Your task to perform on an android device: check storage Image 0: 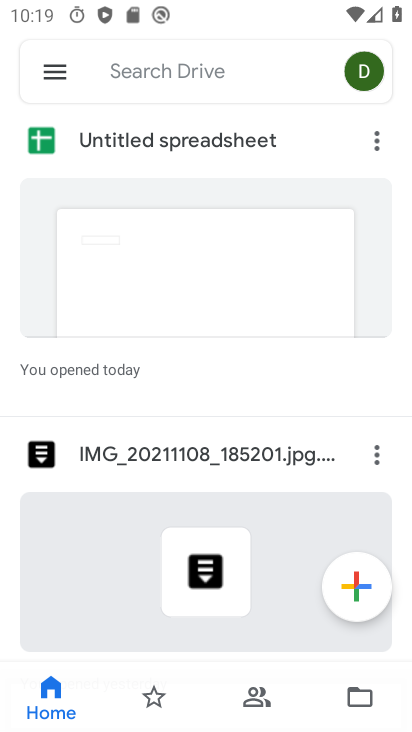
Step 0: press home button
Your task to perform on an android device: check storage Image 1: 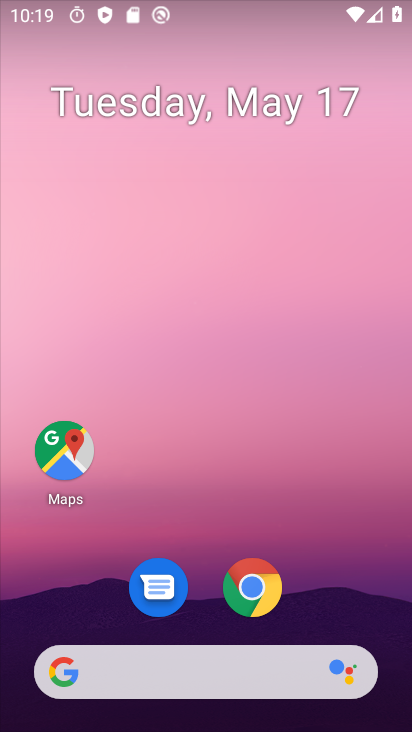
Step 1: drag from (393, 592) to (345, 98)
Your task to perform on an android device: check storage Image 2: 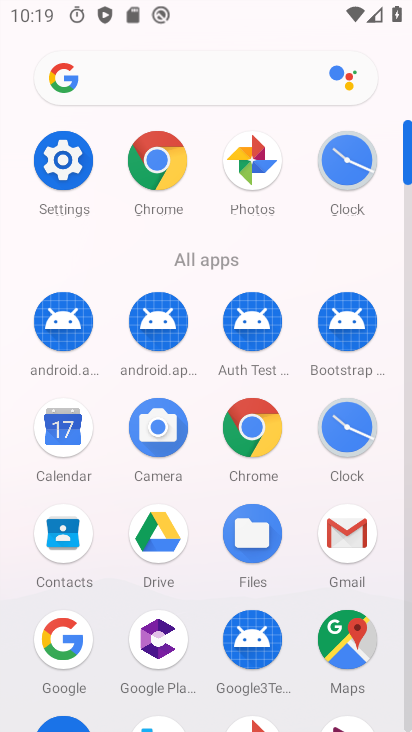
Step 2: click (65, 160)
Your task to perform on an android device: check storage Image 3: 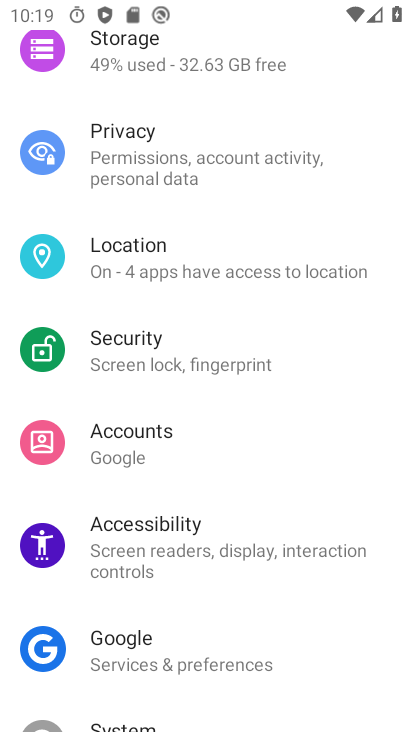
Step 3: drag from (271, 190) to (270, 499)
Your task to perform on an android device: check storage Image 4: 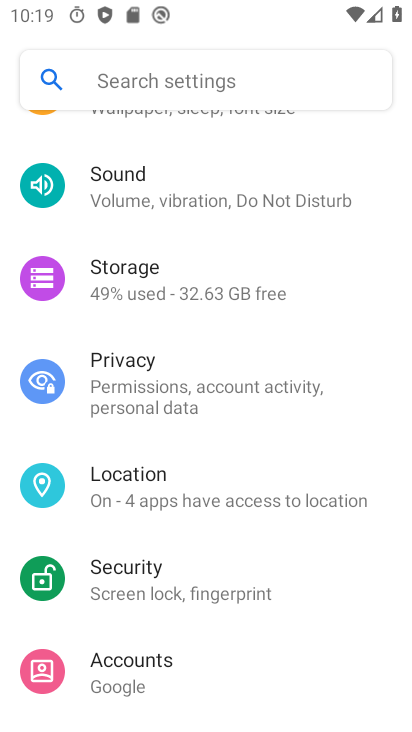
Step 4: click (203, 295)
Your task to perform on an android device: check storage Image 5: 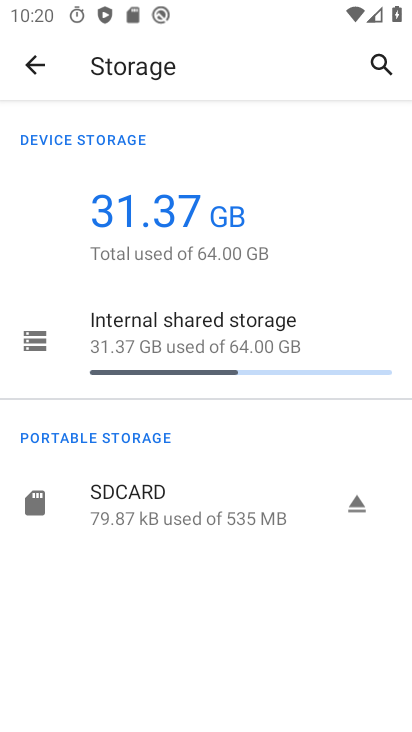
Step 5: click (48, 334)
Your task to perform on an android device: check storage Image 6: 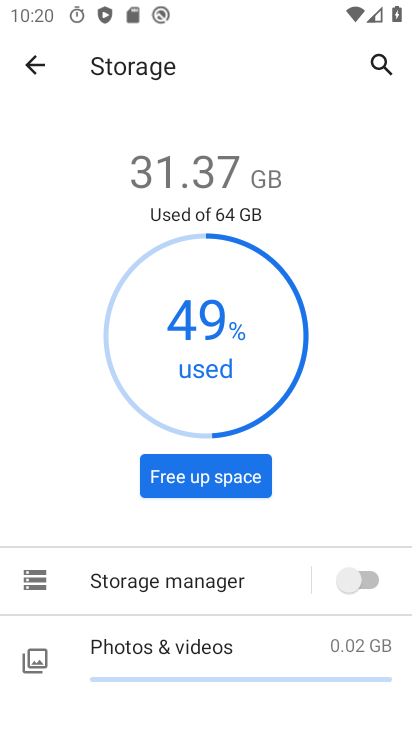
Step 6: task complete